Your task to perform on an android device: change the clock style Image 0: 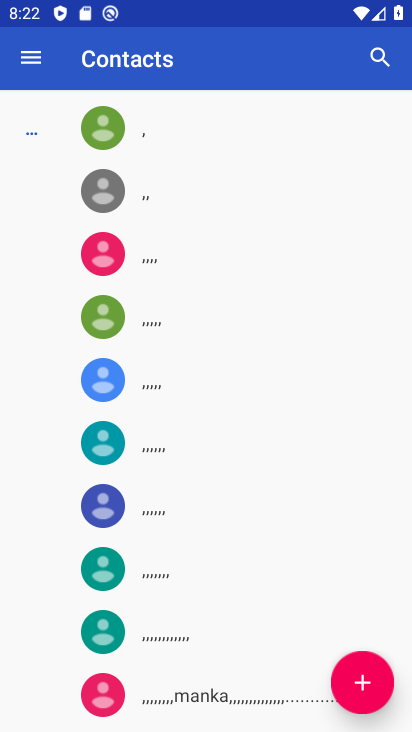
Step 0: press home button
Your task to perform on an android device: change the clock style Image 1: 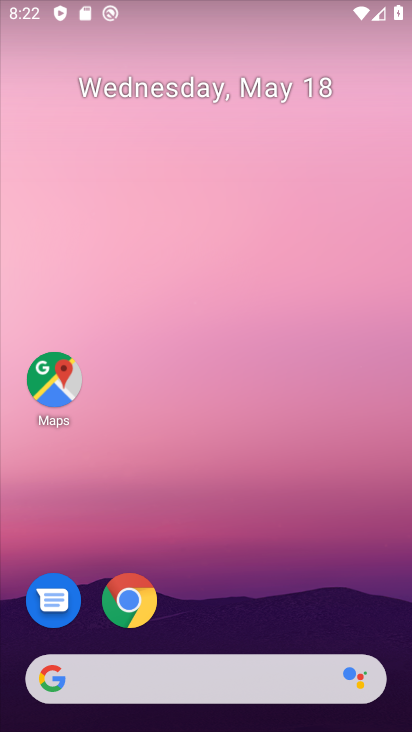
Step 1: drag from (60, 539) to (249, 186)
Your task to perform on an android device: change the clock style Image 2: 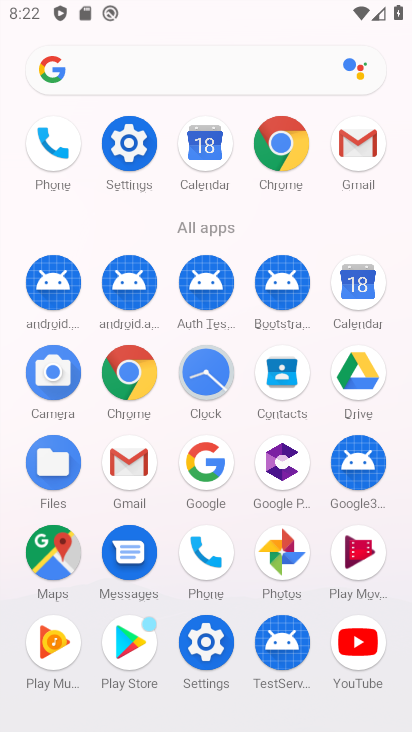
Step 2: click (196, 360)
Your task to perform on an android device: change the clock style Image 3: 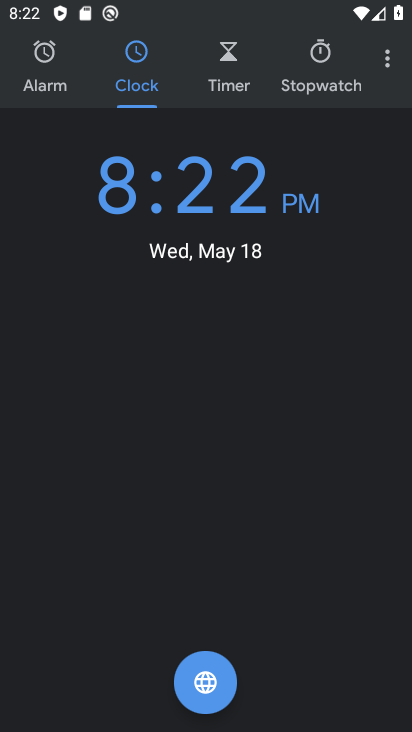
Step 3: click (393, 61)
Your task to perform on an android device: change the clock style Image 4: 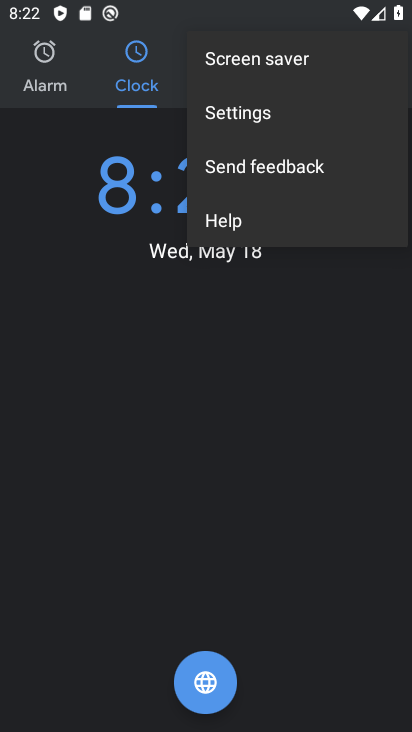
Step 4: click (273, 105)
Your task to perform on an android device: change the clock style Image 5: 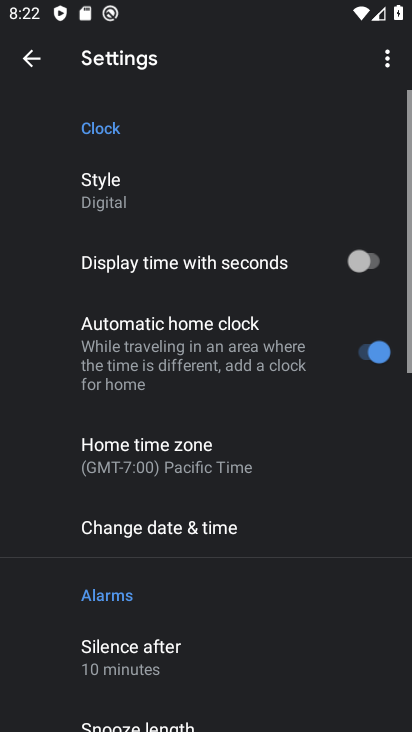
Step 5: click (86, 184)
Your task to perform on an android device: change the clock style Image 6: 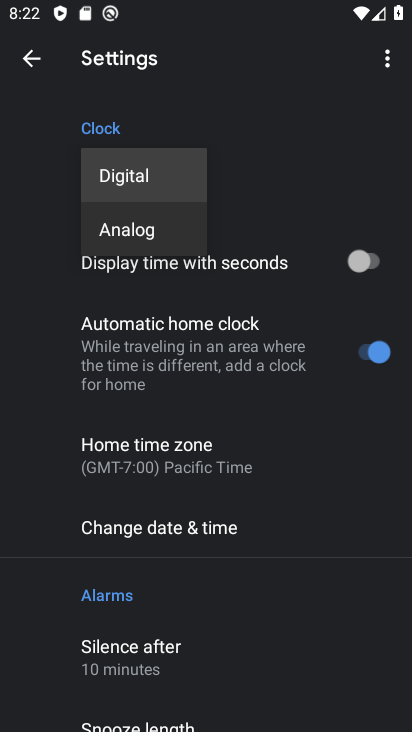
Step 6: click (159, 246)
Your task to perform on an android device: change the clock style Image 7: 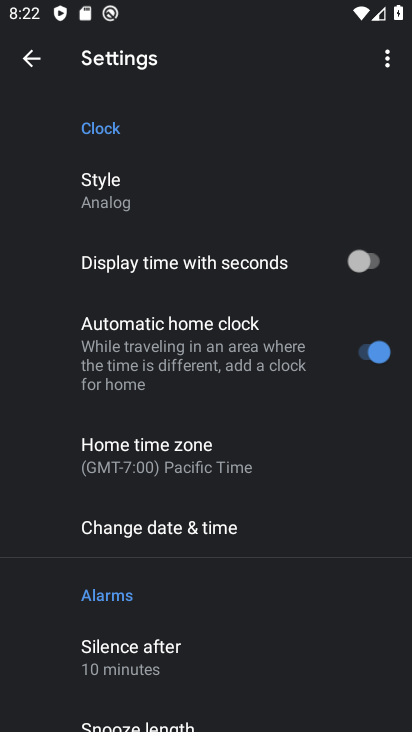
Step 7: task complete